Your task to perform on an android device: What's the weather going to be tomorrow? Image 0: 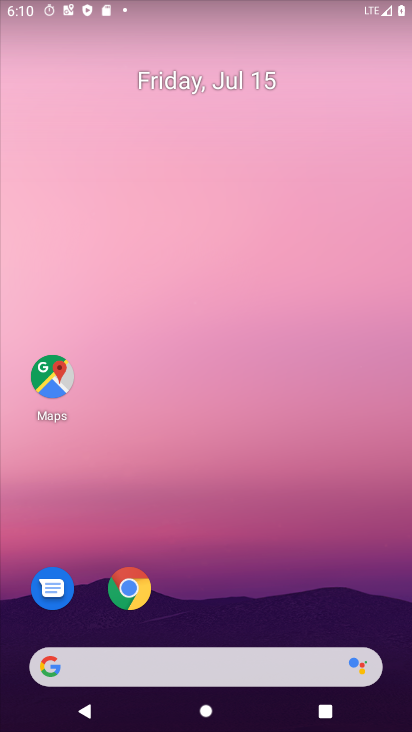
Step 0: drag from (312, 623) to (357, 70)
Your task to perform on an android device: What's the weather going to be tomorrow? Image 1: 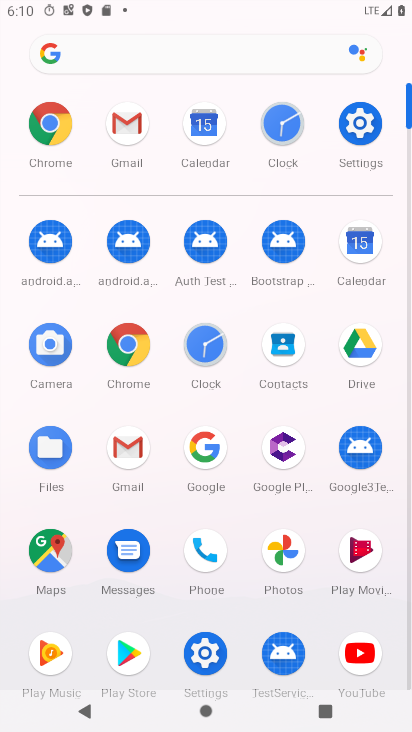
Step 1: click (111, 341)
Your task to perform on an android device: What's the weather going to be tomorrow? Image 2: 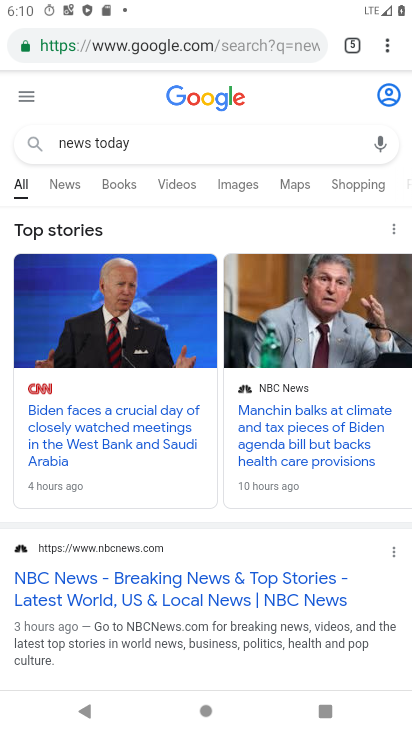
Step 2: click (167, 49)
Your task to perform on an android device: What's the weather going to be tomorrow? Image 3: 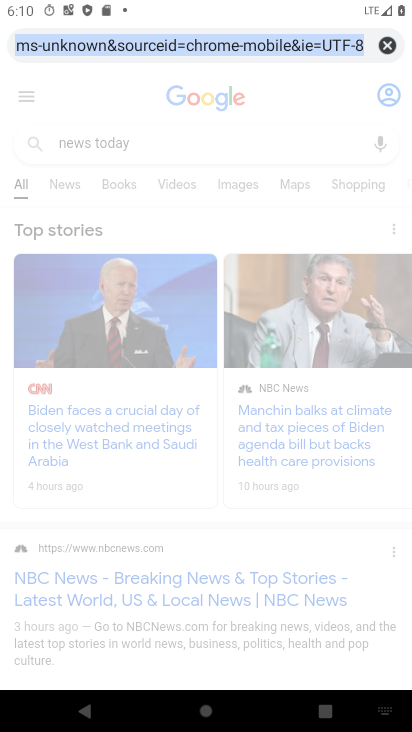
Step 3: type "weather going to be tomorrow"
Your task to perform on an android device: What's the weather going to be tomorrow? Image 4: 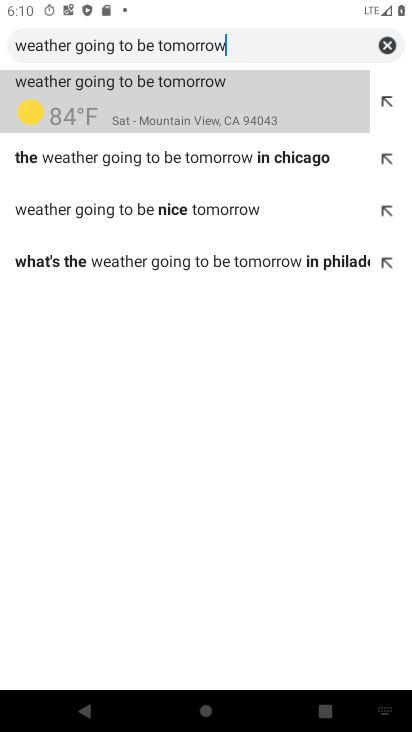
Step 4: click (125, 107)
Your task to perform on an android device: What's the weather going to be tomorrow? Image 5: 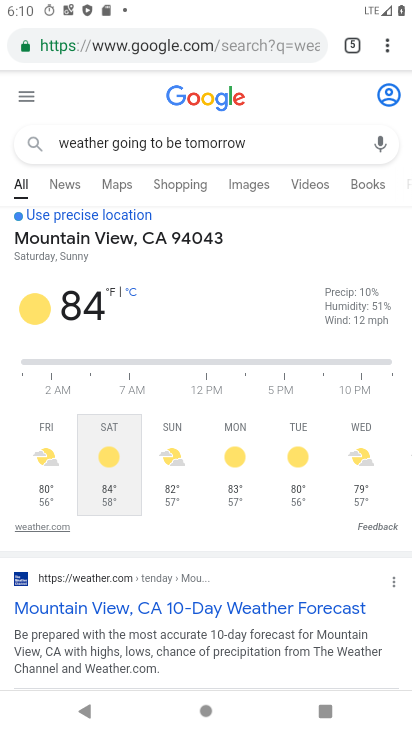
Step 5: task complete